Your task to perform on an android device: Search for sushi restaurants on Maps Image 0: 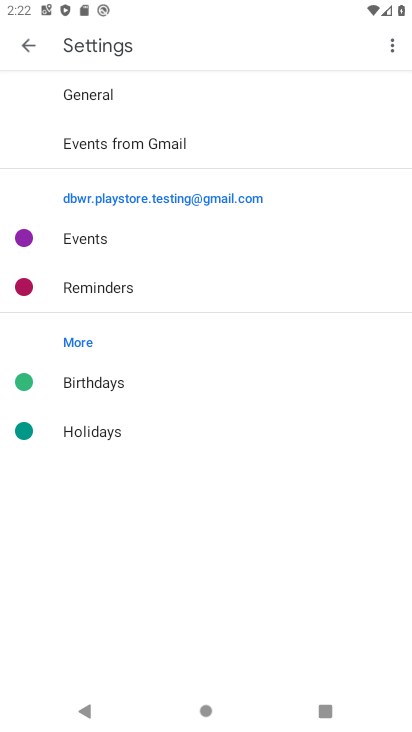
Step 0: press home button
Your task to perform on an android device: Search for sushi restaurants on Maps Image 1: 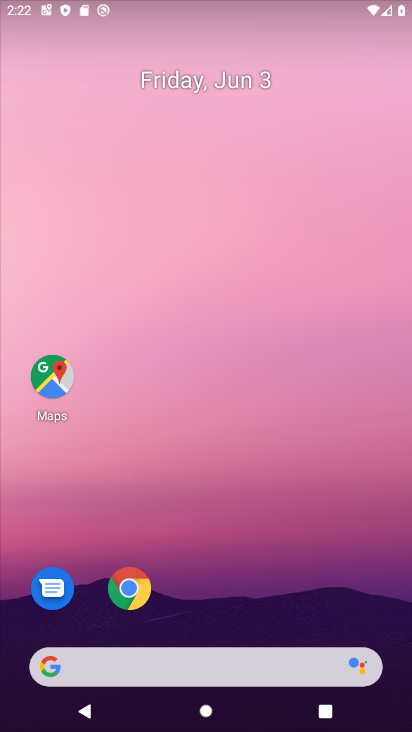
Step 1: drag from (254, 604) to (228, 177)
Your task to perform on an android device: Search for sushi restaurants on Maps Image 2: 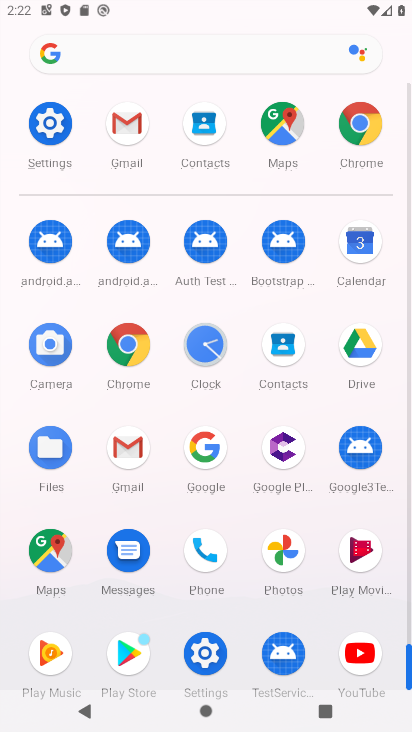
Step 2: click (53, 558)
Your task to perform on an android device: Search for sushi restaurants on Maps Image 3: 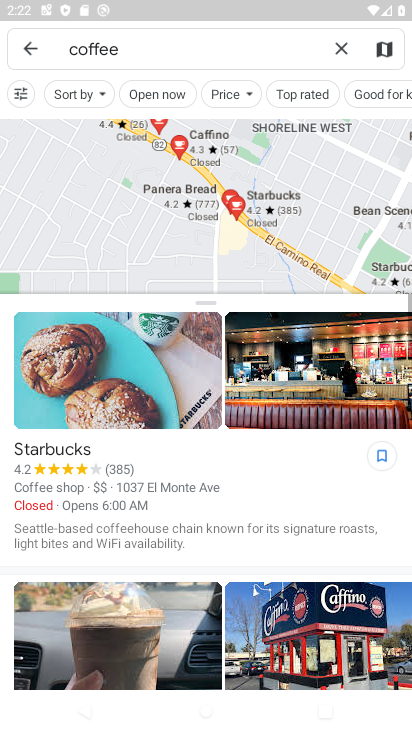
Step 3: click (331, 37)
Your task to perform on an android device: Search for sushi restaurants on Maps Image 4: 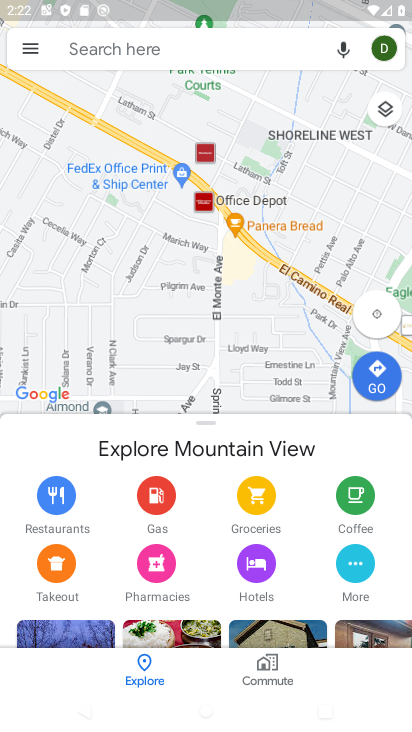
Step 4: type "sushi restaurants"
Your task to perform on an android device: Search for sushi restaurants on Maps Image 5: 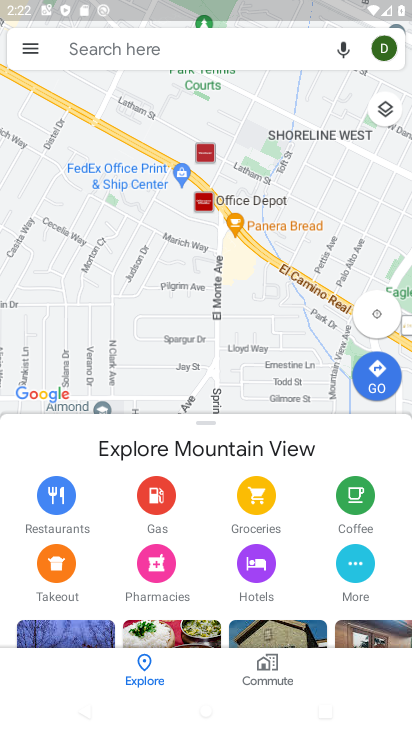
Step 5: click (157, 43)
Your task to perform on an android device: Search for sushi restaurants on Maps Image 6: 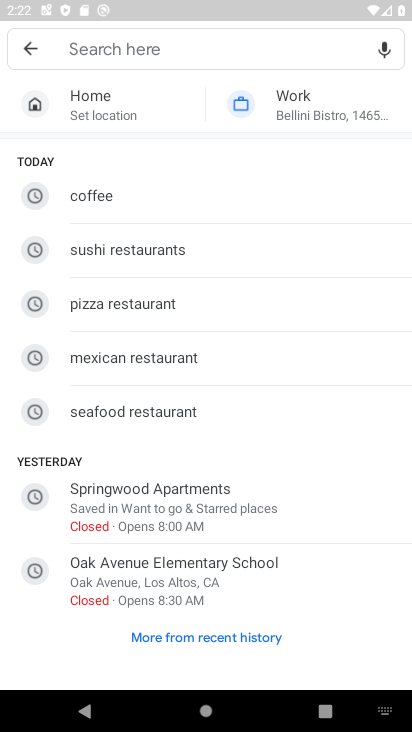
Step 6: click (212, 248)
Your task to perform on an android device: Search for sushi restaurants on Maps Image 7: 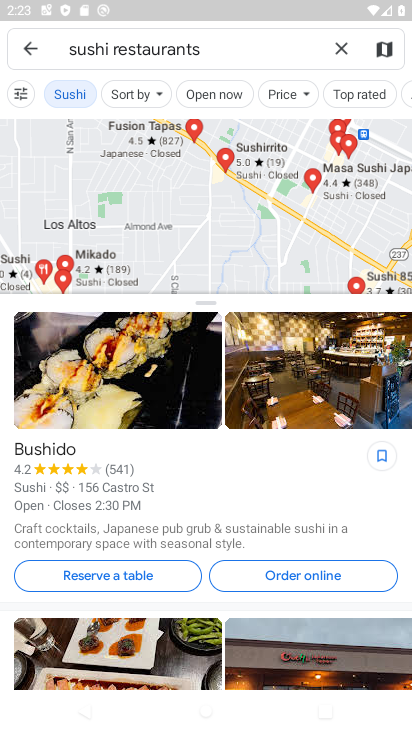
Step 7: task complete